Your task to perform on an android device: When is my next meeting? Image 0: 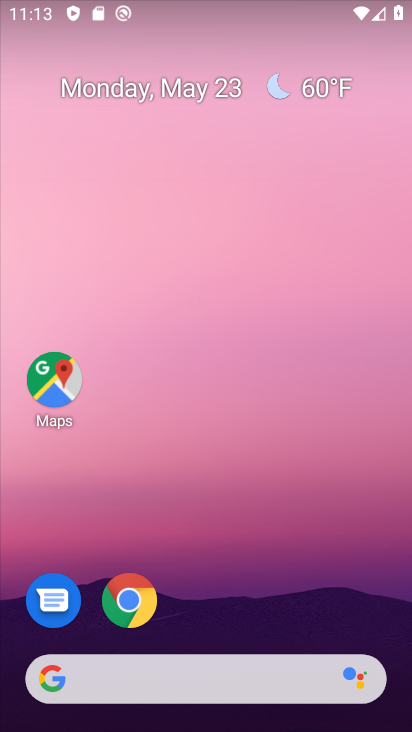
Step 0: drag from (266, 678) to (243, 109)
Your task to perform on an android device: When is my next meeting? Image 1: 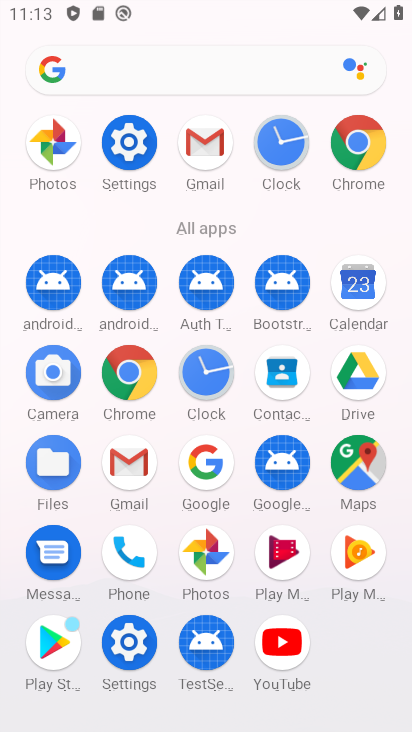
Step 1: click (357, 289)
Your task to perform on an android device: When is my next meeting? Image 2: 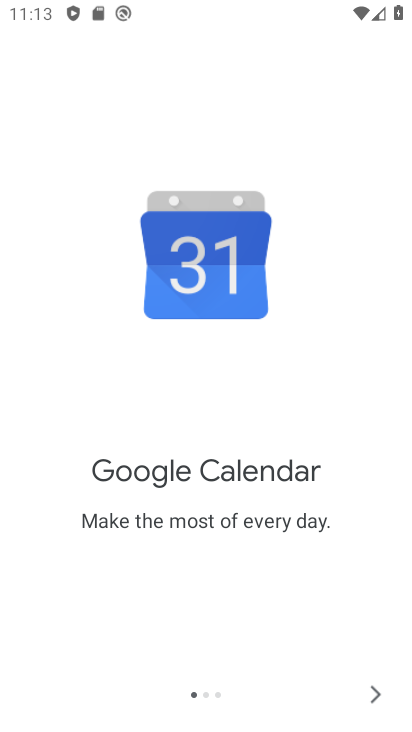
Step 2: click (371, 692)
Your task to perform on an android device: When is my next meeting? Image 3: 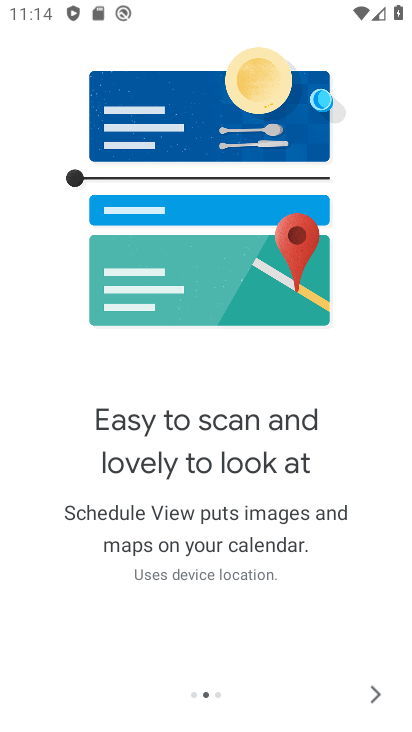
Step 3: click (371, 692)
Your task to perform on an android device: When is my next meeting? Image 4: 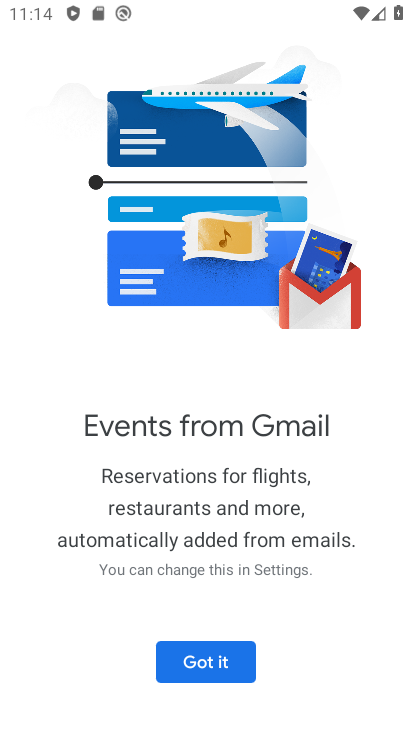
Step 4: click (217, 647)
Your task to perform on an android device: When is my next meeting? Image 5: 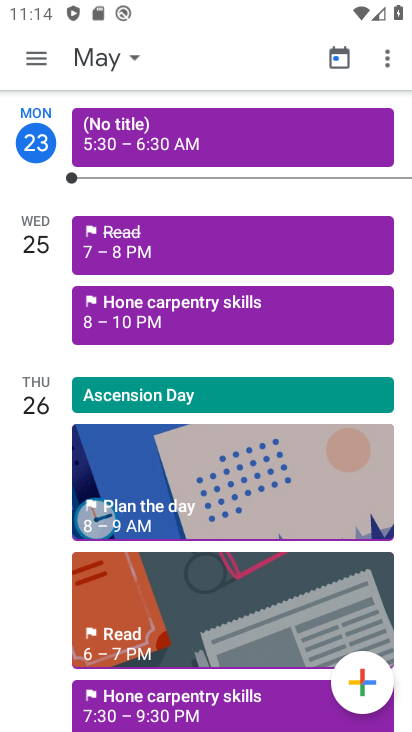
Step 5: click (30, 62)
Your task to perform on an android device: When is my next meeting? Image 6: 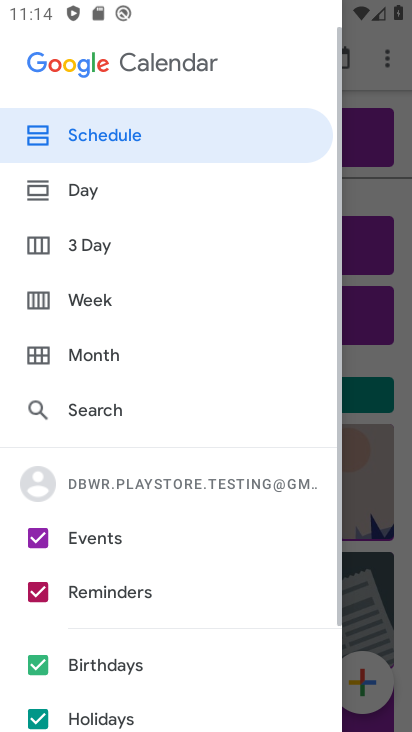
Step 6: click (91, 148)
Your task to perform on an android device: When is my next meeting? Image 7: 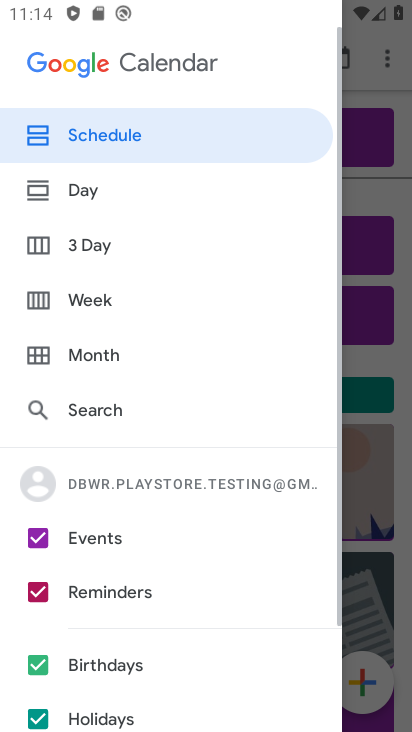
Step 7: task complete